Your task to perform on an android device: Is it going to rain today? Image 0: 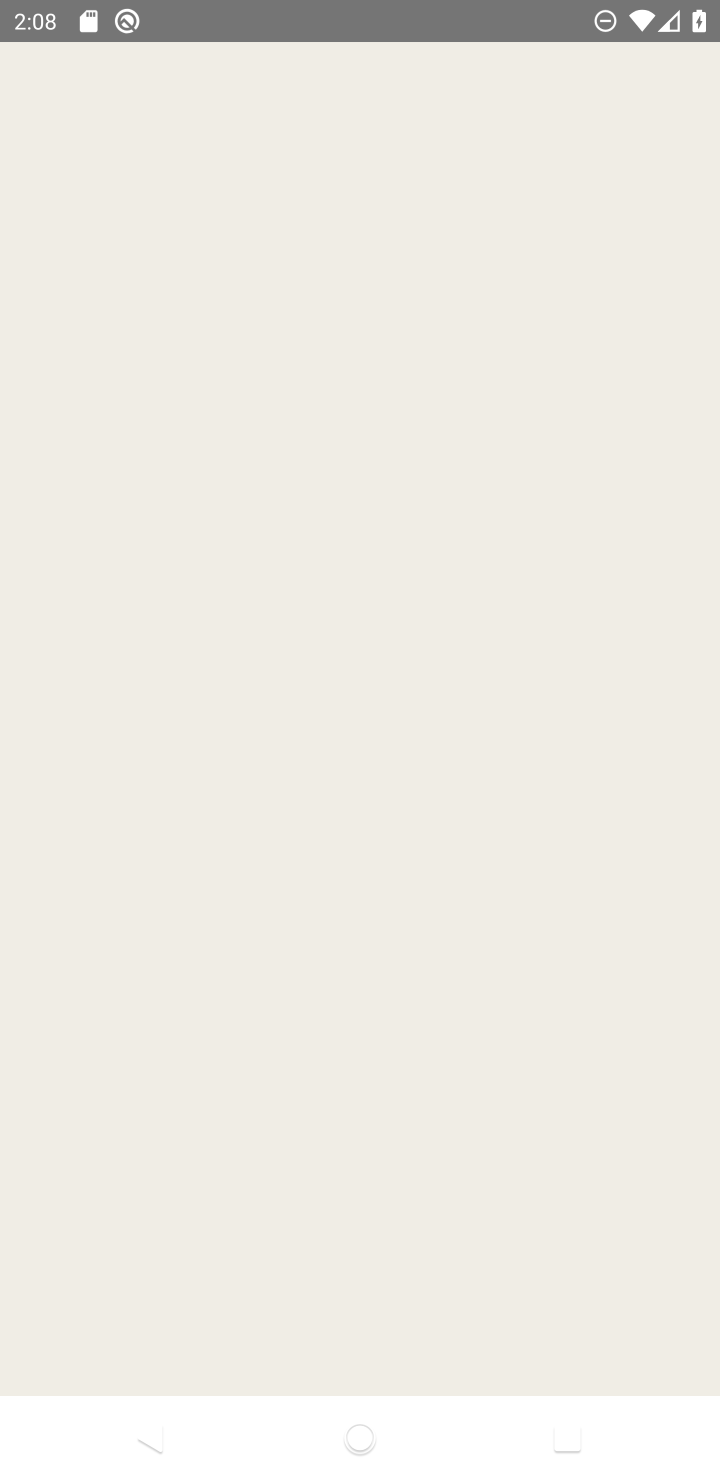
Step 0: press home button
Your task to perform on an android device: Is it going to rain today? Image 1: 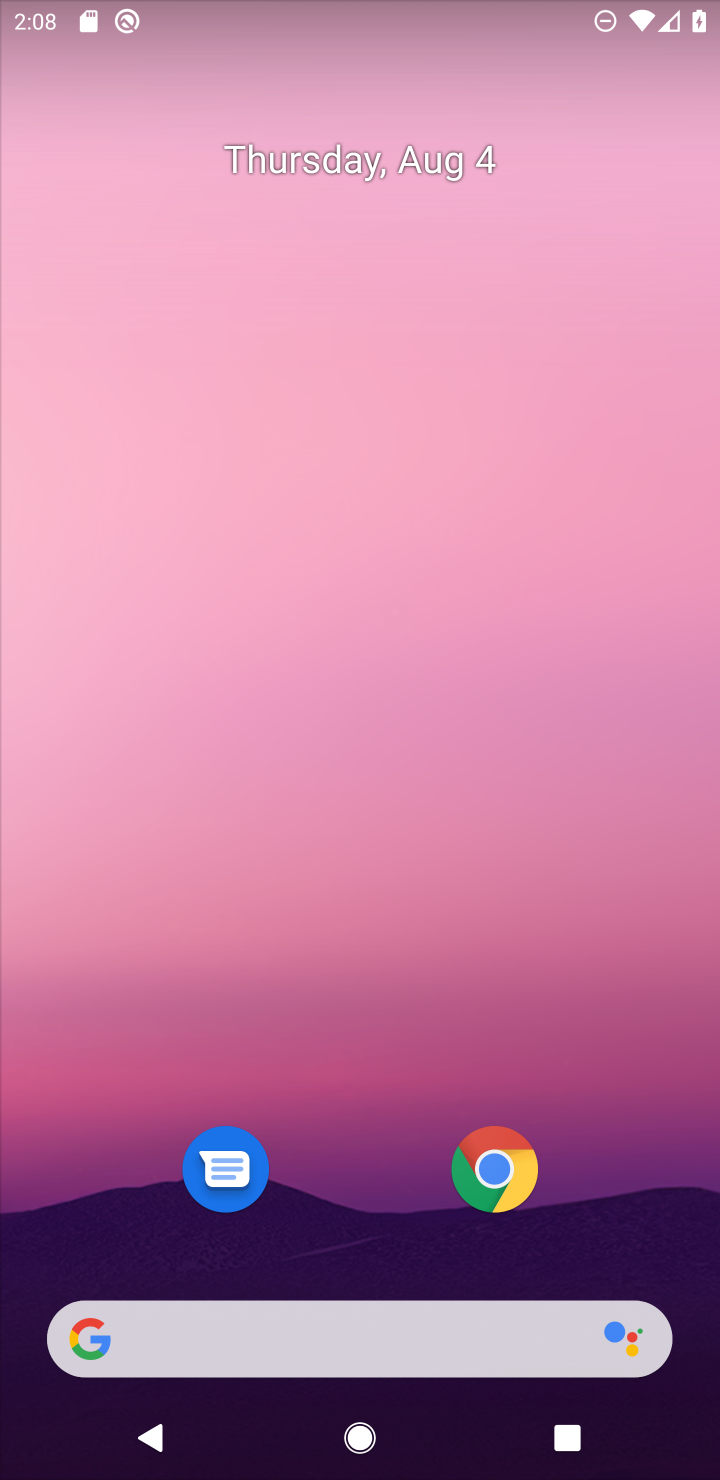
Step 1: click (220, 1335)
Your task to perform on an android device: Is it going to rain today? Image 2: 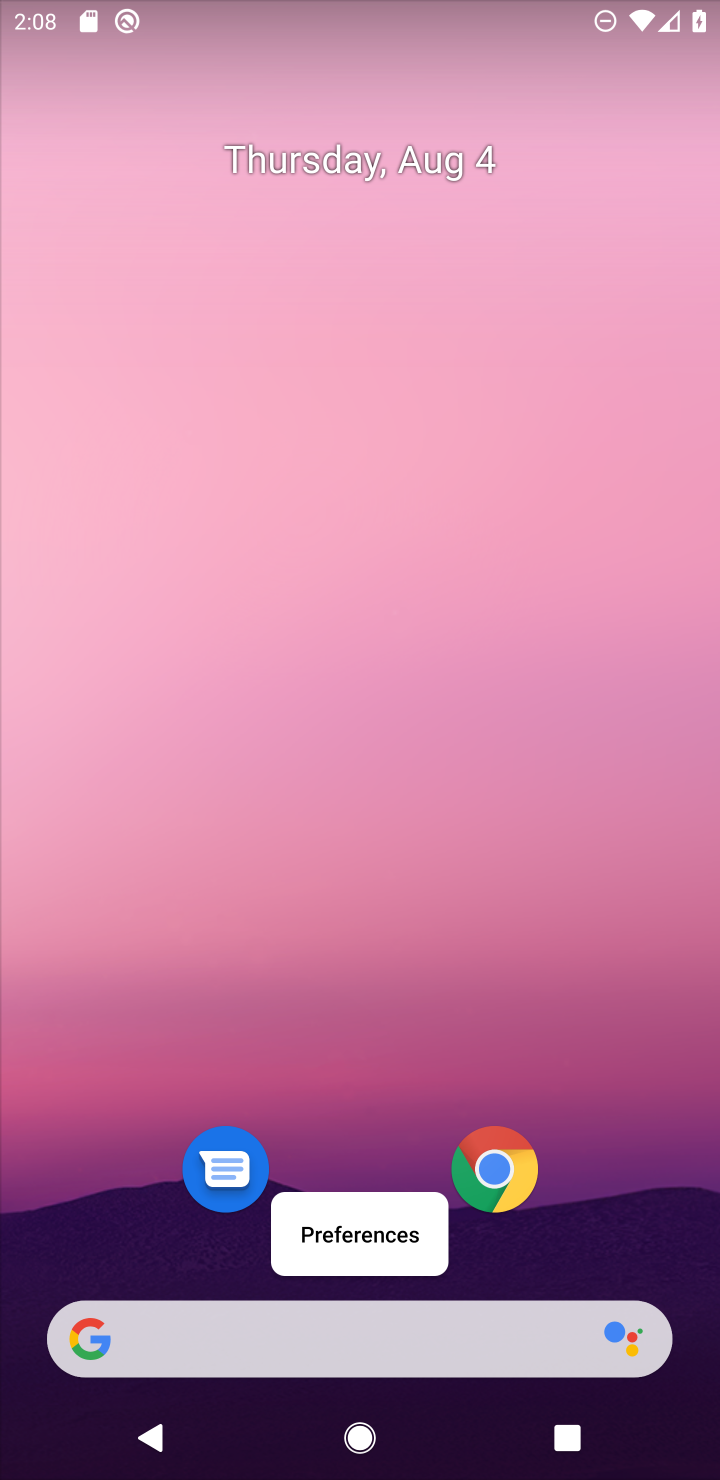
Step 2: click (190, 1344)
Your task to perform on an android device: Is it going to rain today? Image 3: 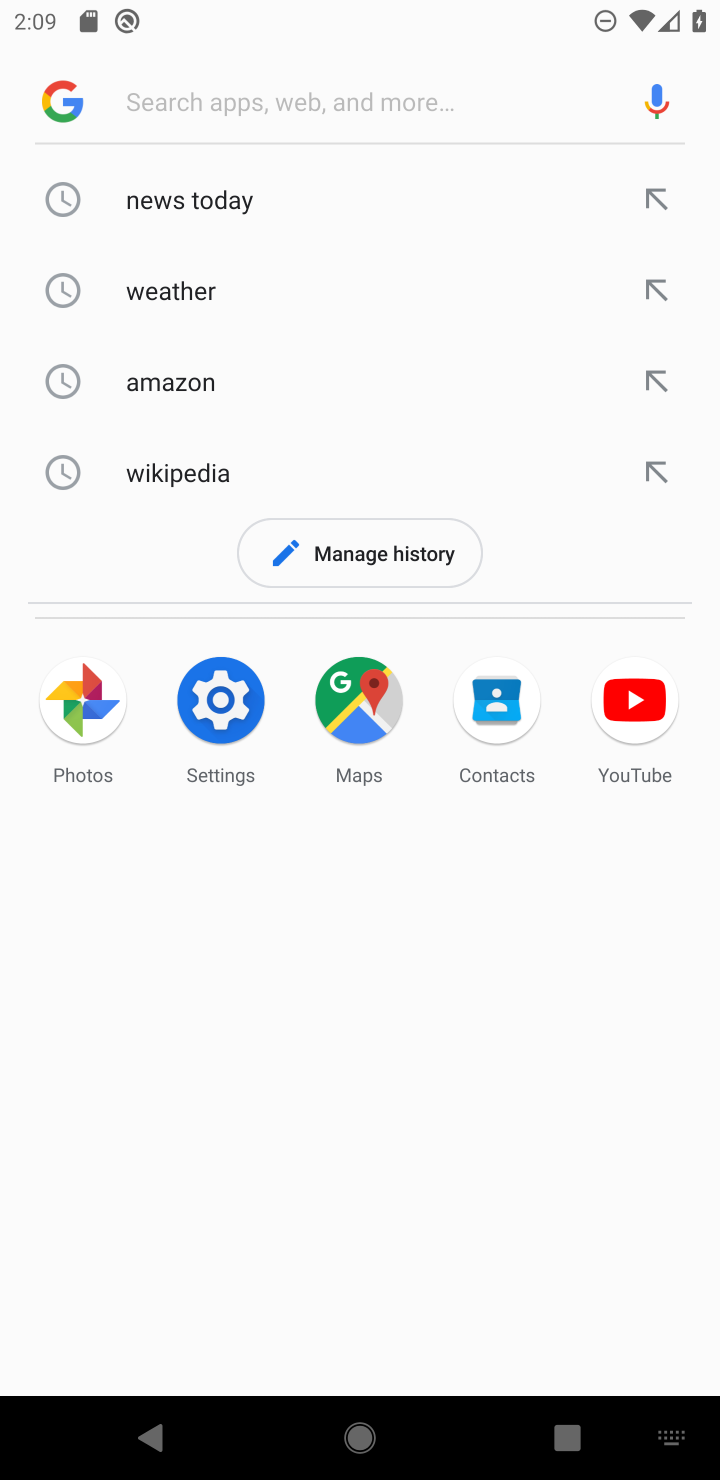
Step 3: click (174, 300)
Your task to perform on an android device: Is it going to rain today? Image 4: 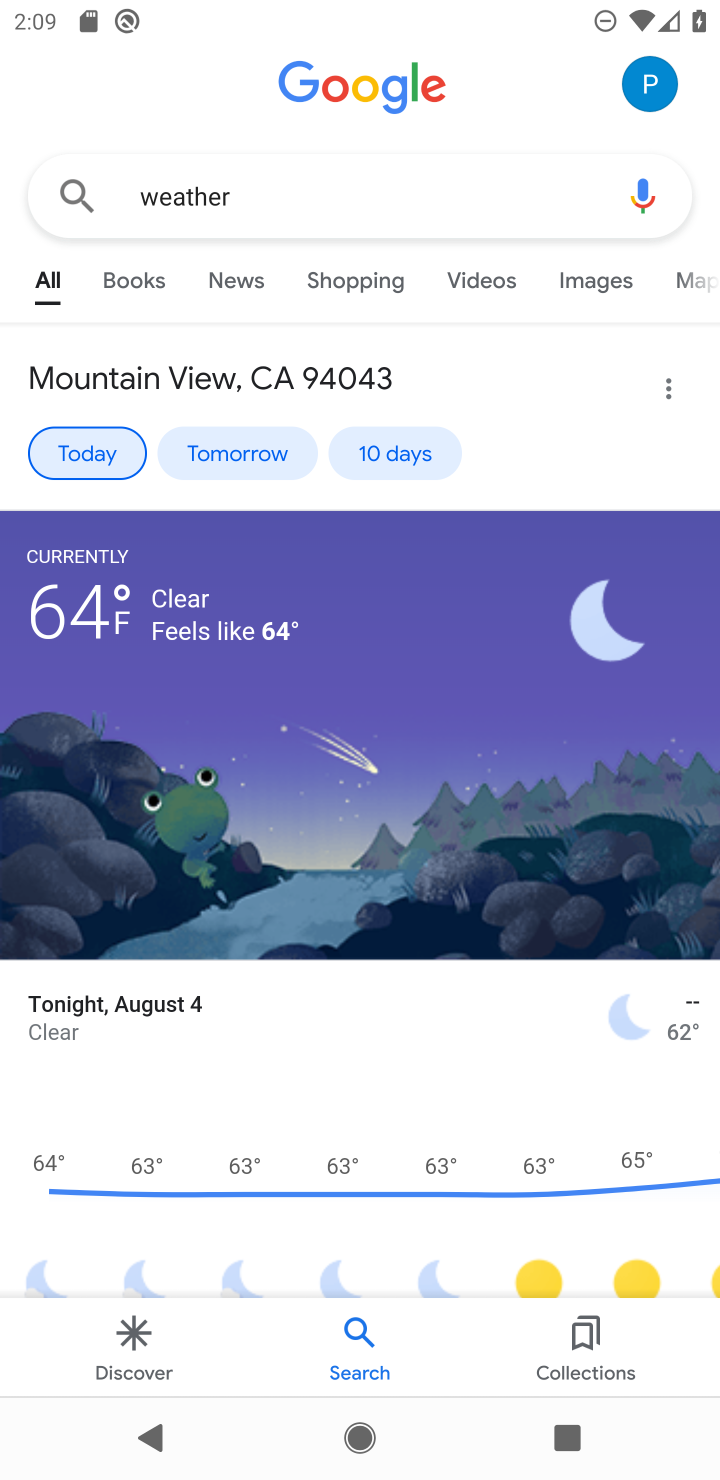
Step 4: task complete